Your task to perform on an android device: turn off airplane mode Image 0: 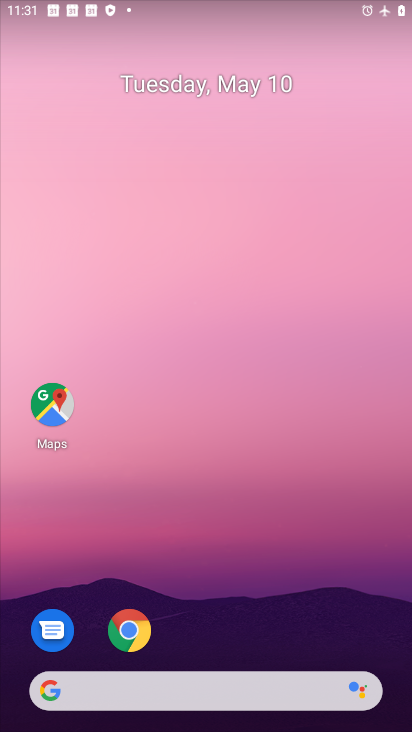
Step 0: drag from (282, 9) to (404, 23)
Your task to perform on an android device: turn off airplane mode Image 1: 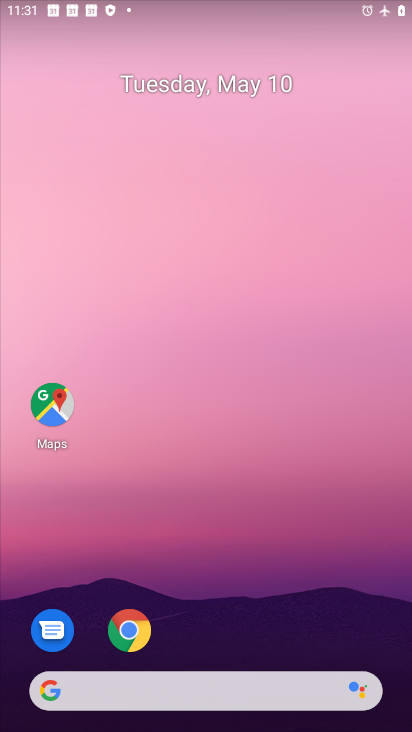
Step 1: drag from (215, 711) to (283, 170)
Your task to perform on an android device: turn off airplane mode Image 2: 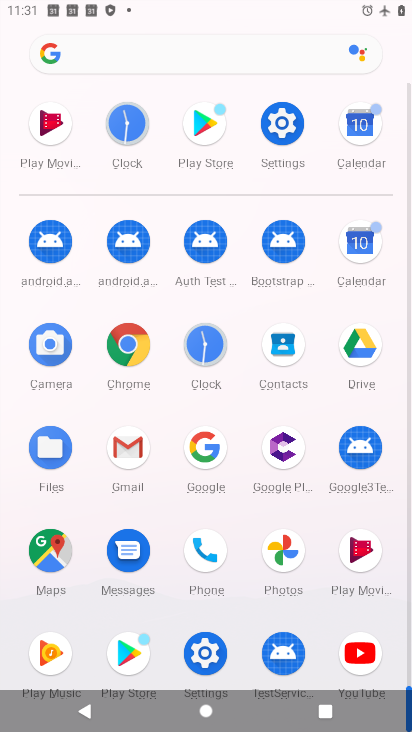
Step 2: click (287, 122)
Your task to perform on an android device: turn off airplane mode Image 3: 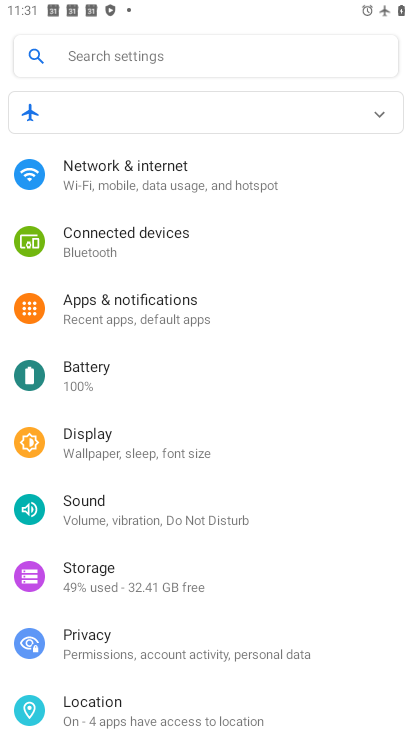
Step 3: click (232, 169)
Your task to perform on an android device: turn off airplane mode Image 4: 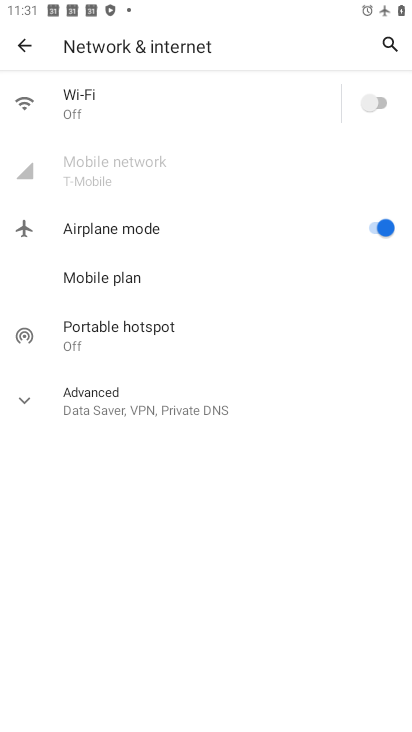
Step 4: click (391, 232)
Your task to perform on an android device: turn off airplane mode Image 5: 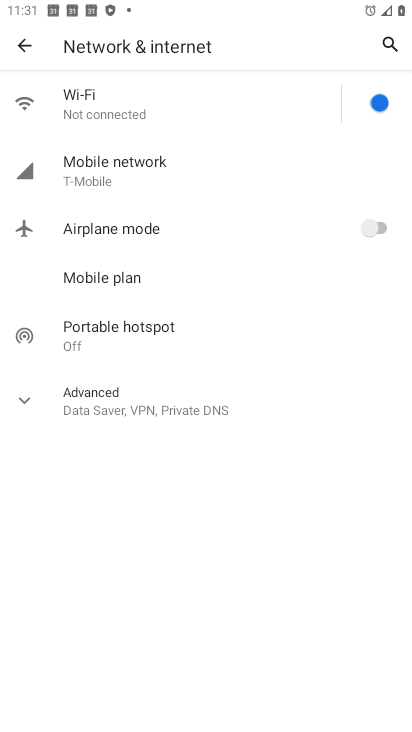
Step 5: task complete